Your task to perform on an android device: toggle data saver in the chrome app Image 0: 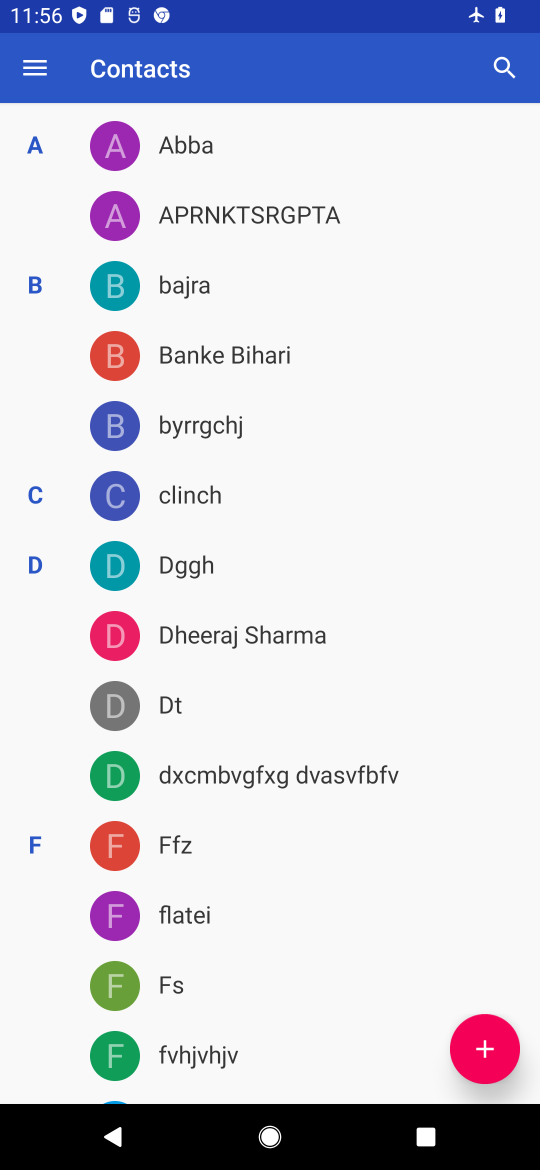
Step 0: press home button
Your task to perform on an android device: toggle data saver in the chrome app Image 1: 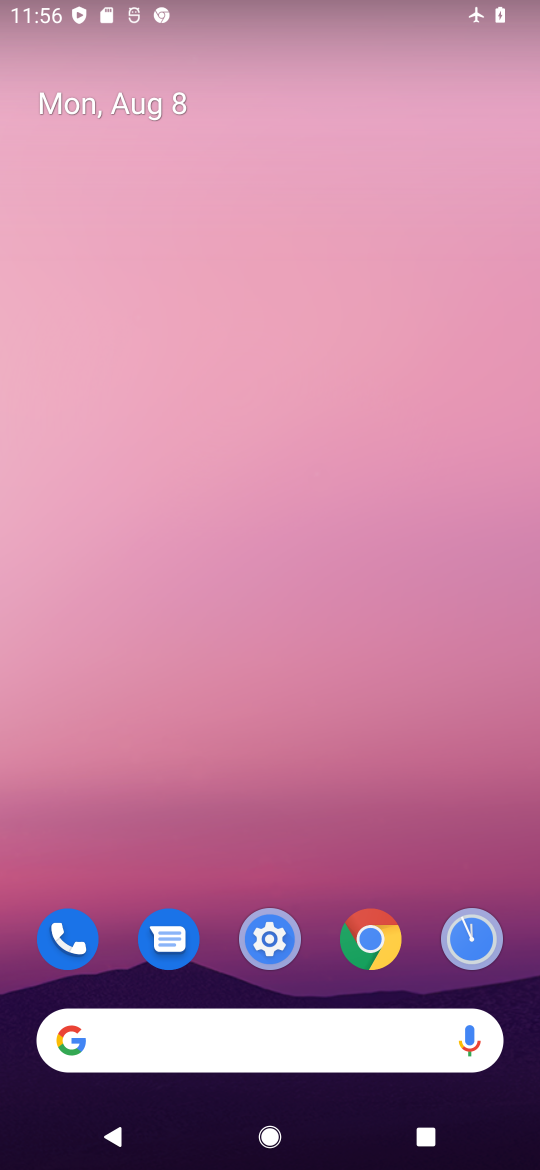
Step 1: click (371, 942)
Your task to perform on an android device: toggle data saver in the chrome app Image 2: 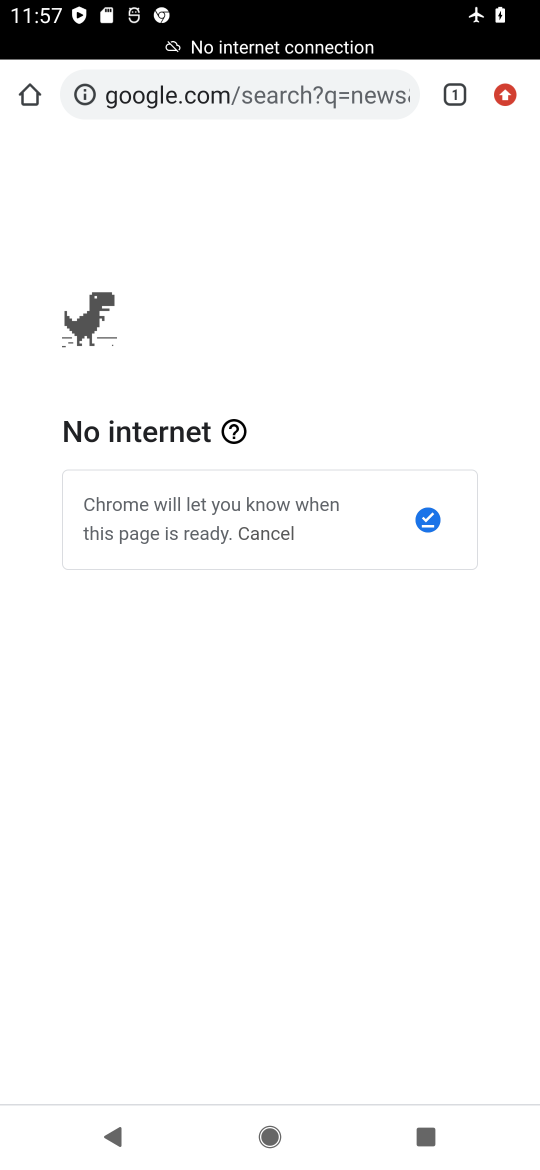
Step 2: click (506, 97)
Your task to perform on an android device: toggle data saver in the chrome app Image 3: 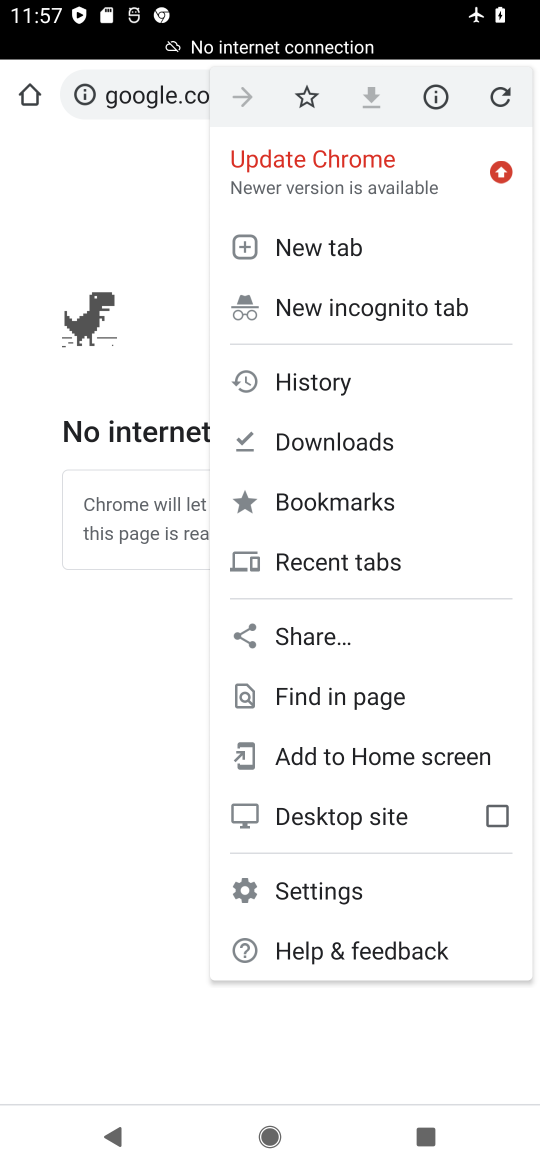
Step 3: click (316, 887)
Your task to perform on an android device: toggle data saver in the chrome app Image 4: 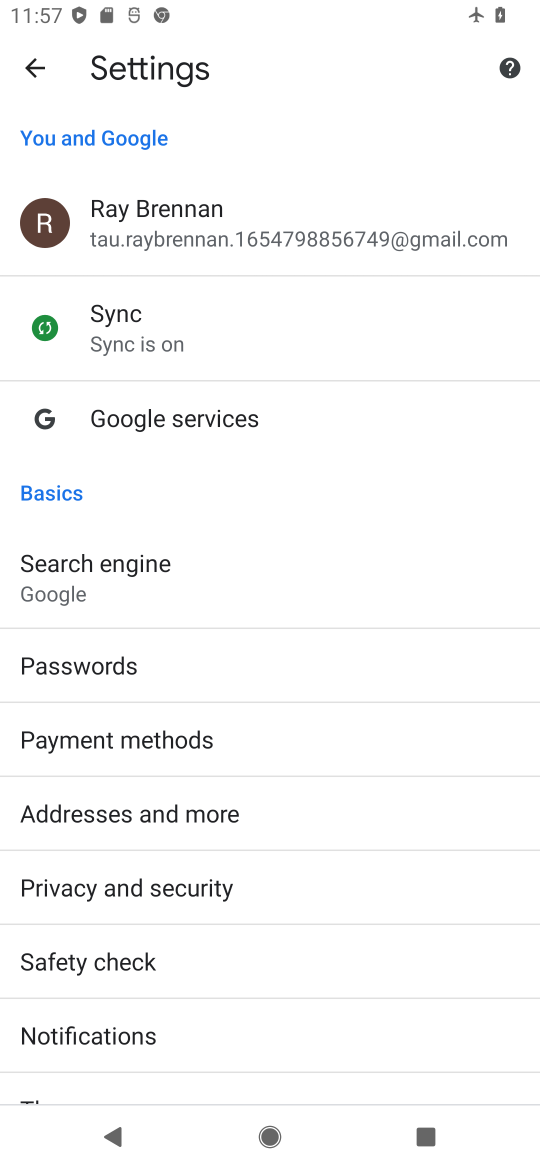
Step 4: drag from (79, 851) to (196, 701)
Your task to perform on an android device: toggle data saver in the chrome app Image 5: 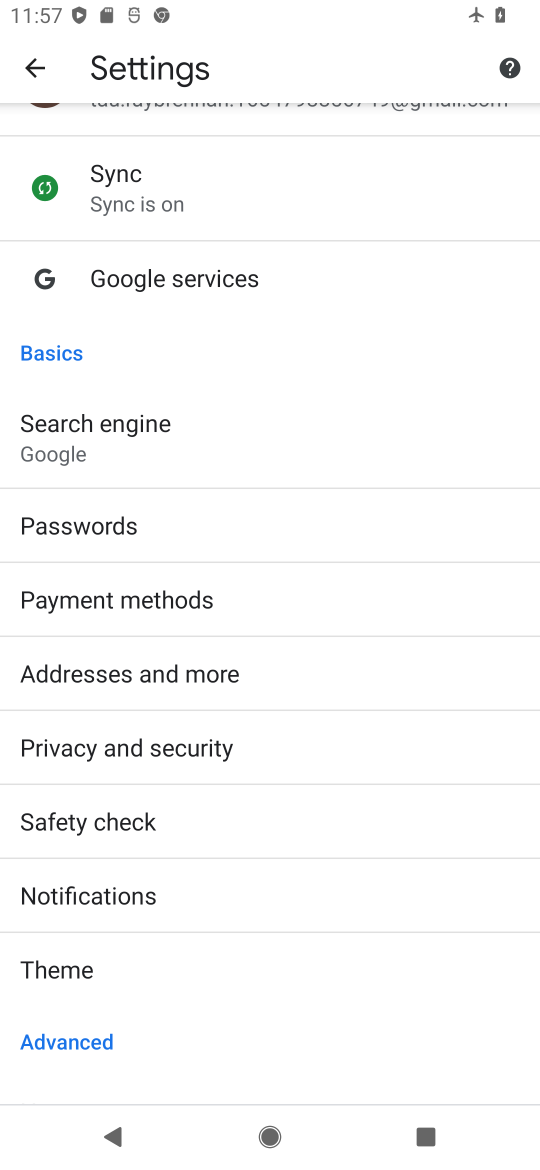
Step 5: drag from (164, 883) to (258, 758)
Your task to perform on an android device: toggle data saver in the chrome app Image 6: 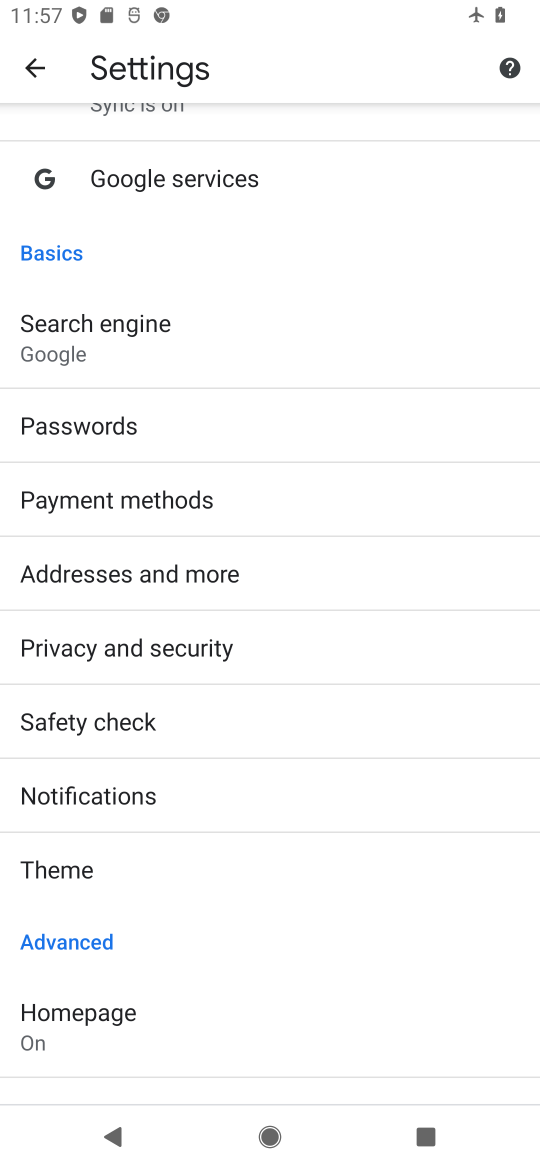
Step 6: drag from (172, 926) to (304, 755)
Your task to perform on an android device: toggle data saver in the chrome app Image 7: 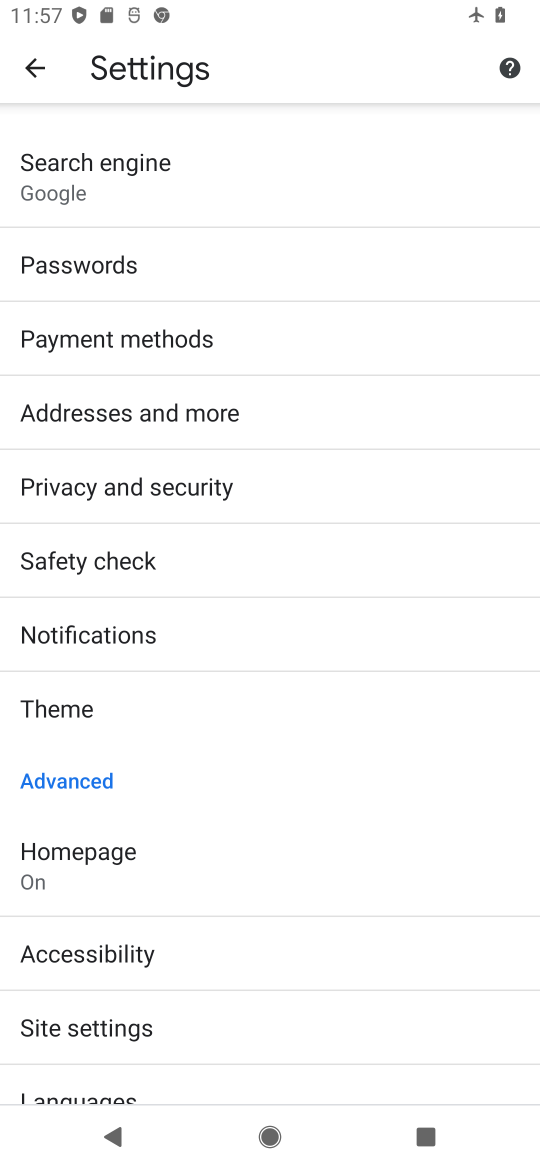
Step 7: drag from (190, 985) to (349, 797)
Your task to perform on an android device: toggle data saver in the chrome app Image 8: 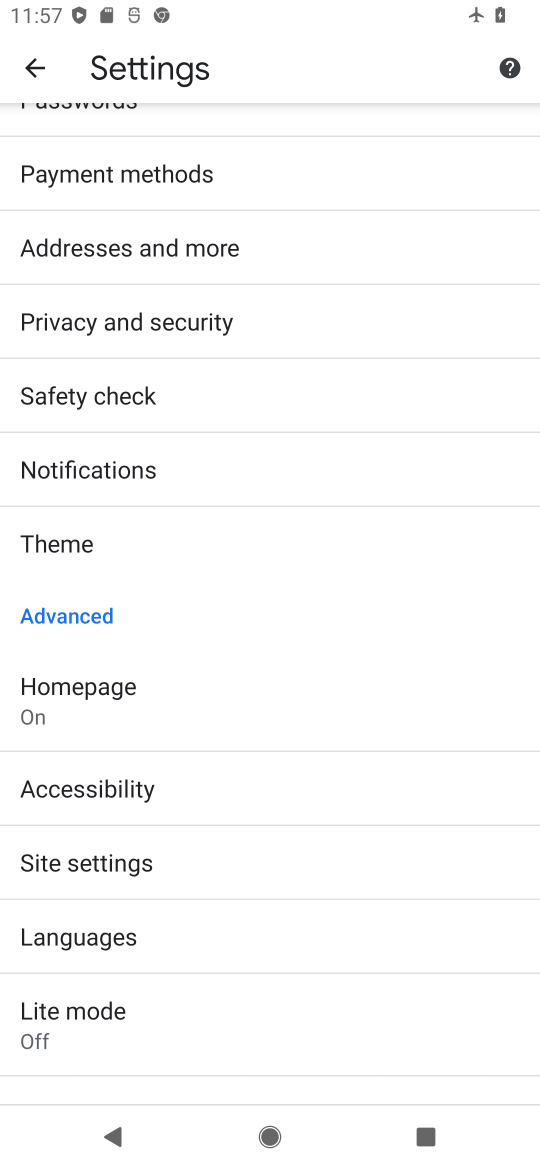
Step 8: drag from (219, 964) to (365, 799)
Your task to perform on an android device: toggle data saver in the chrome app Image 9: 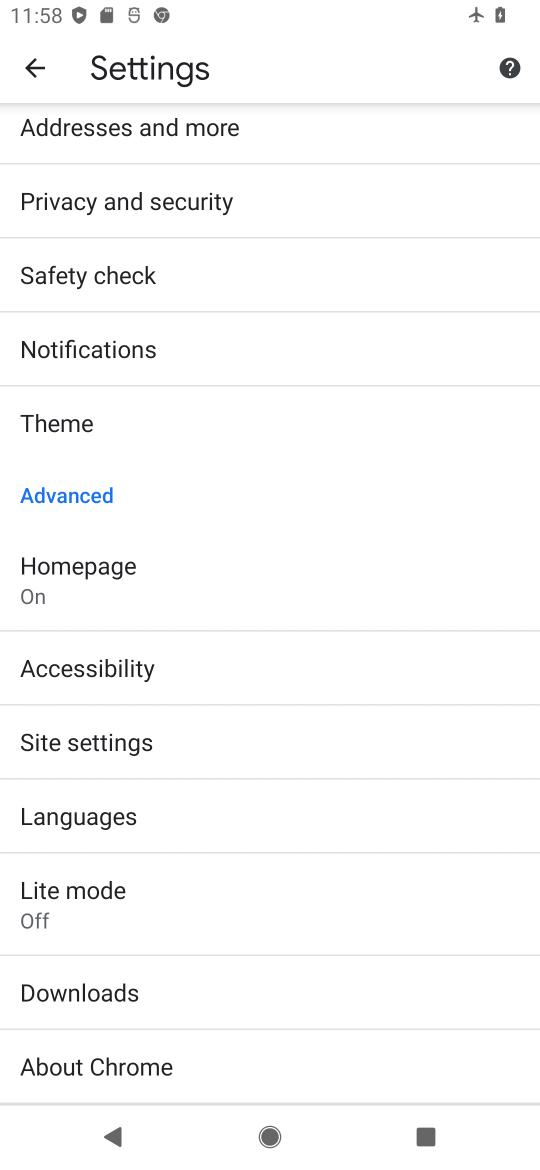
Step 9: click (144, 924)
Your task to perform on an android device: toggle data saver in the chrome app Image 10: 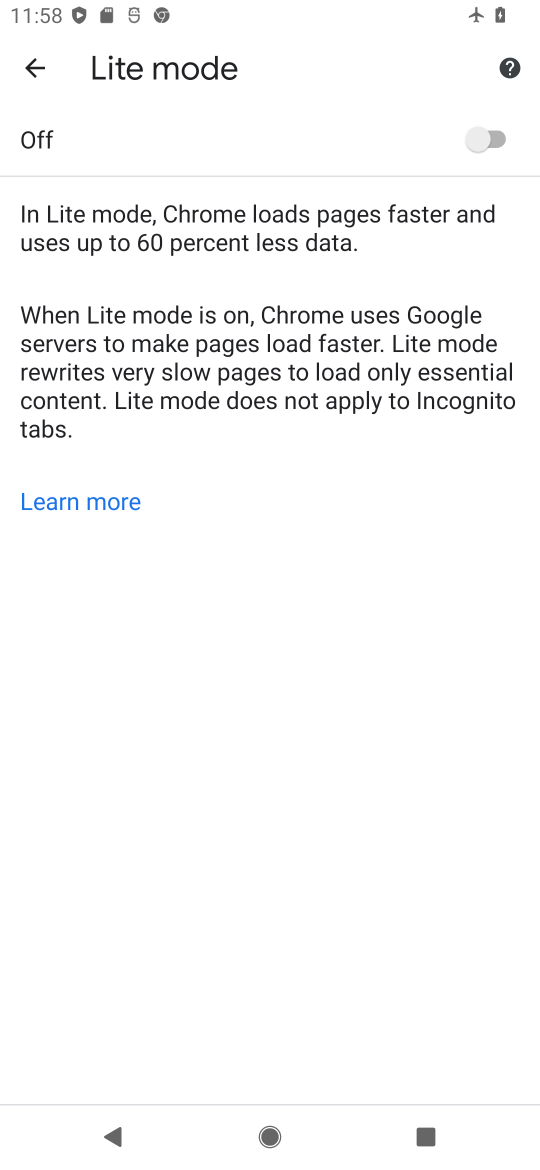
Step 10: click (494, 137)
Your task to perform on an android device: toggle data saver in the chrome app Image 11: 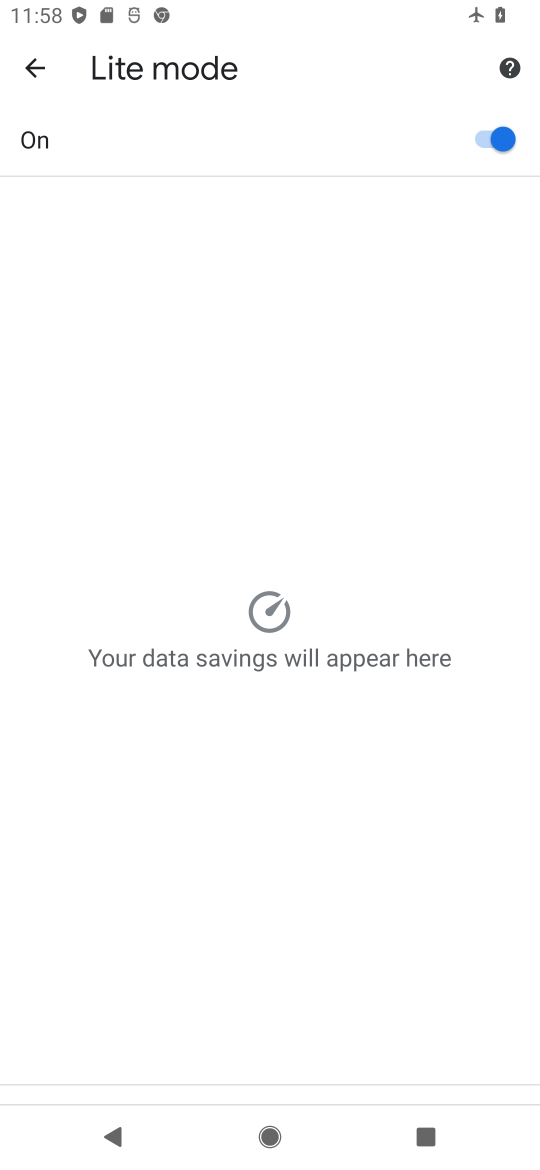
Step 11: task complete